Your task to perform on an android device: Open privacy settings Image 0: 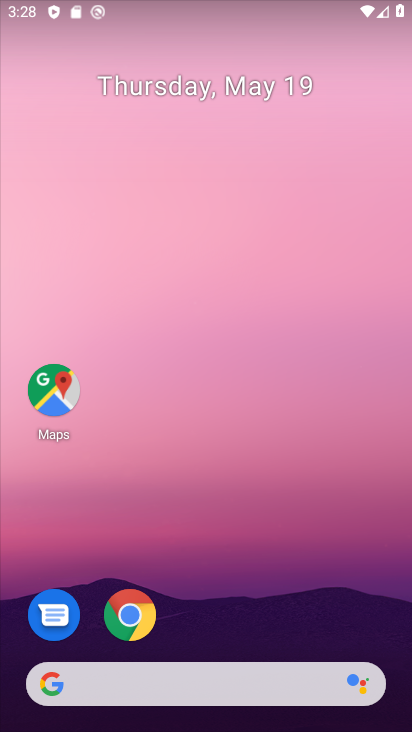
Step 0: drag from (251, 634) to (296, 16)
Your task to perform on an android device: Open privacy settings Image 1: 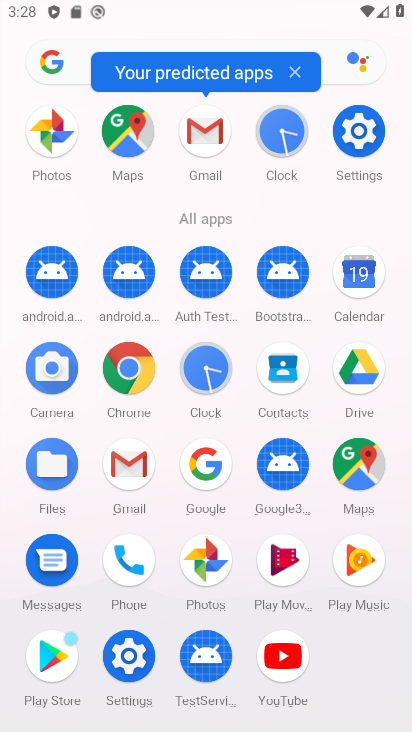
Step 1: click (371, 143)
Your task to perform on an android device: Open privacy settings Image 2: 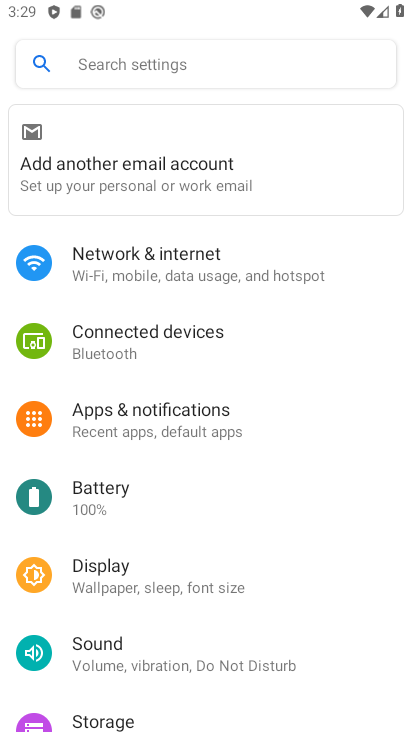
Step 2: drag from (325, 589) to (309, 312)
Your task to perform on an android device: Open privacy settings Image 3: 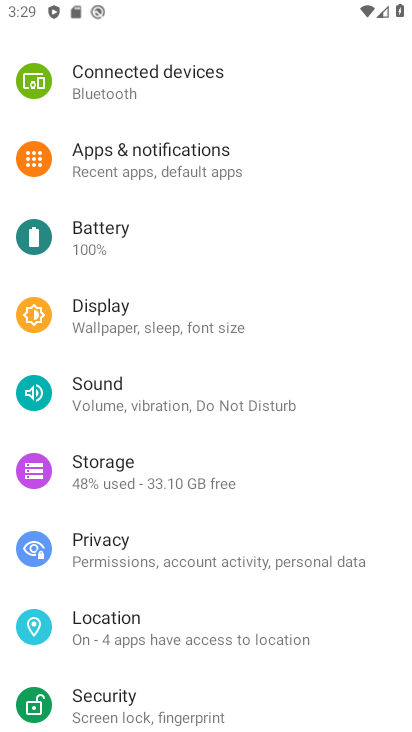
Step 3: click (107, 559)
Your task to perform on an android device: Open privacy settings Image 4: 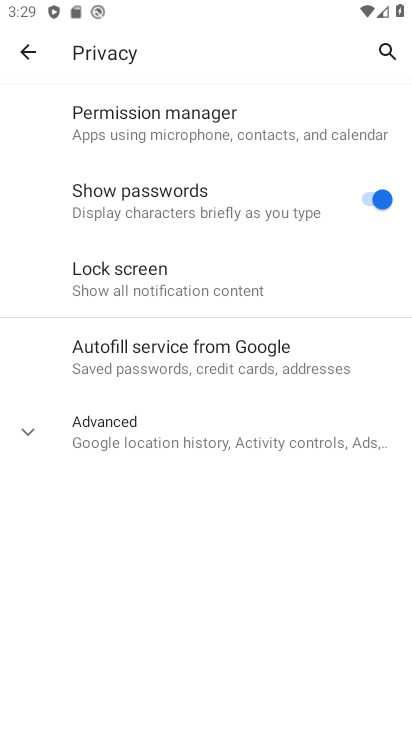
Step 4: task complete